Your task to perform on an android device: Open Reddit.com Image 0: 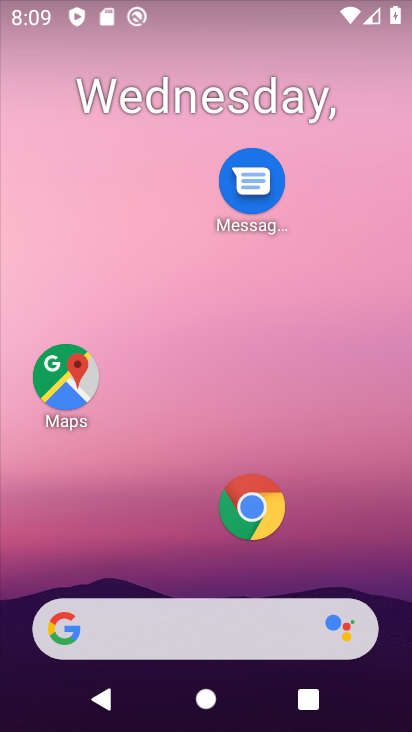
Step 0: click (161, 636)
Your task to perform on an android device: Open Reddit.com Image 1: 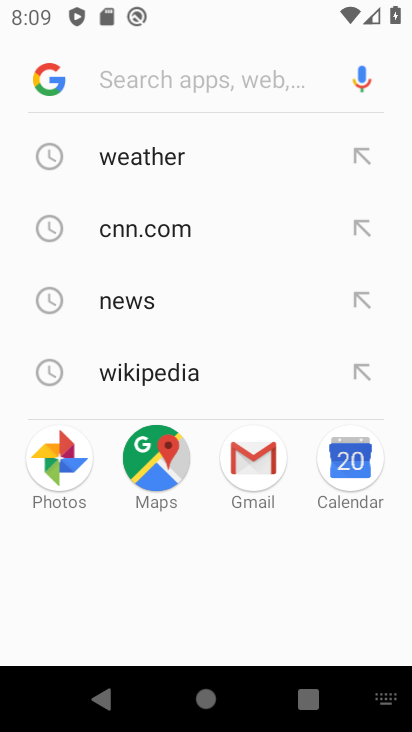
Step 1: type "Reddit.com"
Your task to perform on an android device: Open Reddit.com Image 2: 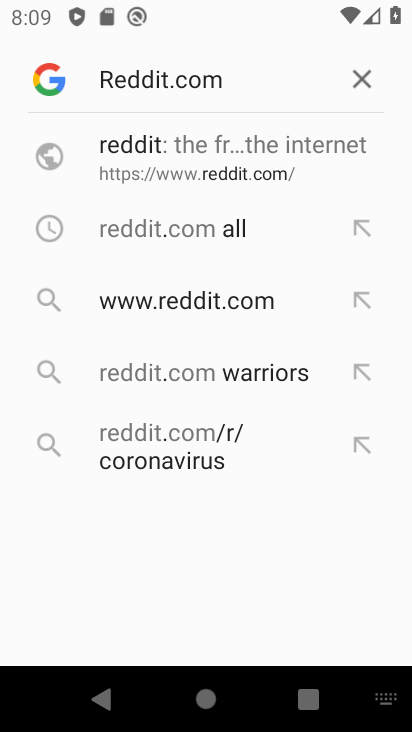
Step 2: click (256, 158)
Your task to perform on an android device: Open Reddit.com Image 3: 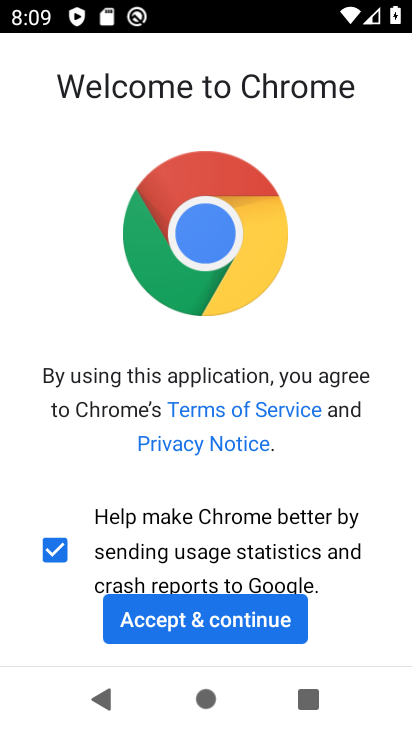
Step 3: click (245, 616)
Your task to perform on an android device: Open Reddit.com Image 4: 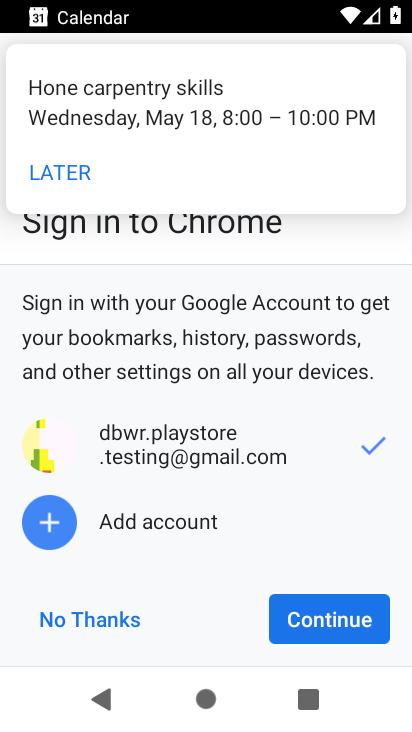
Step 4: click (299, 624)
Your task to perform on an android device: Open Reddit.com Image 5: 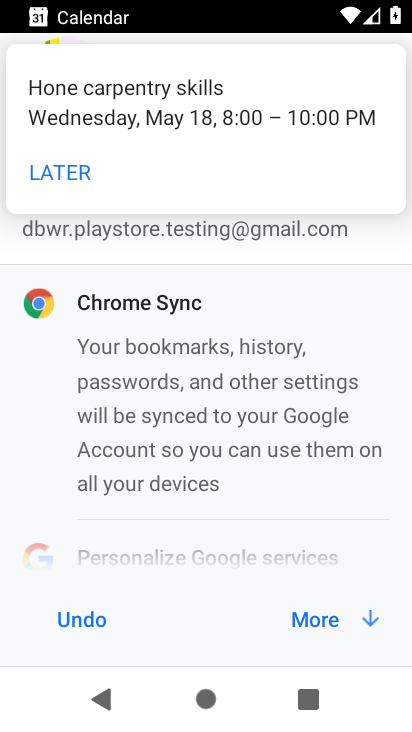
Step 5: click (301, 622)
Your task to perform on an android device: Open Reddit.com Image 6: 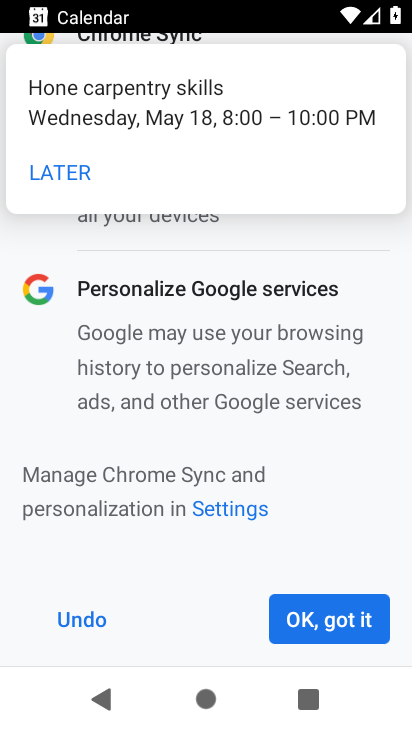
Step 6: click (302, 622)
Your task to perform on an android device: Open Reddit.com Image 7: 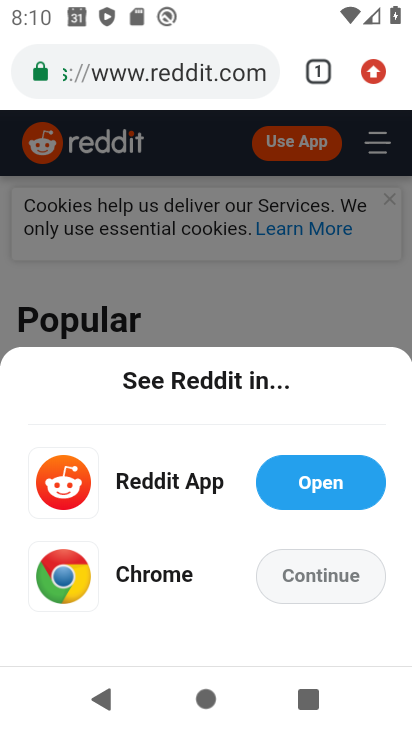
Step 7: task complete